Your task to perform on an android device: Open Chrome and go to the settings page Image 0: 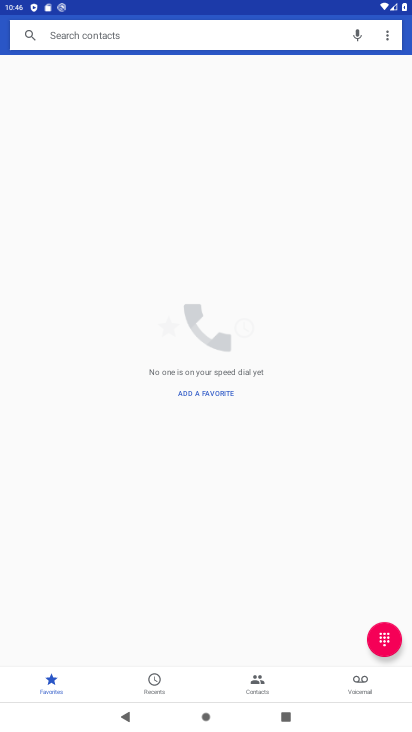
Step 0: press home button
Your task to perform on an android device: Open Chrome and go to the settings page Image 1: 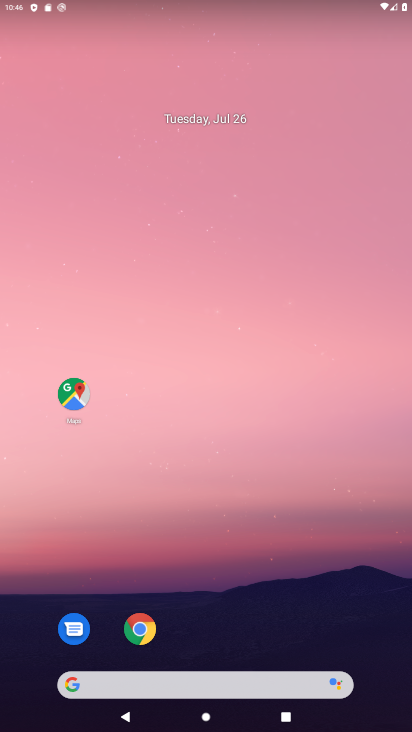
Step 1: drag from (265, 589) to (232, 6)
Your task to perform on an android device: Open Chrome and go to the settings page Image 2: 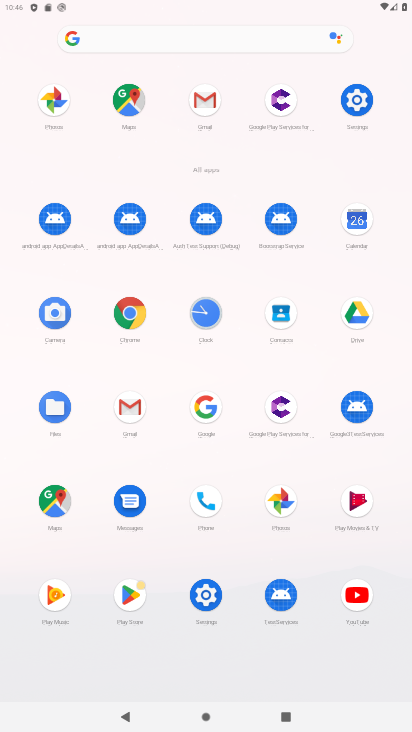
Step 2: click (125, 303)
Your task to perform on an android device: Open Chrome and go to the settings page Image 3: 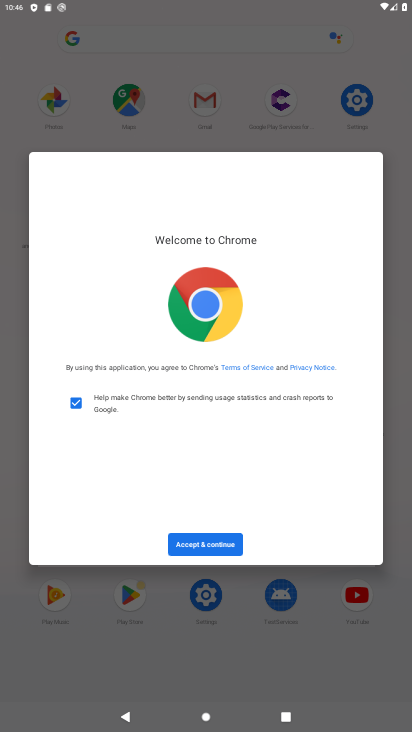
Step 3: click (196, 537)
Your task to perform on an android device: Open Chrome and go to the settings page Image 4: 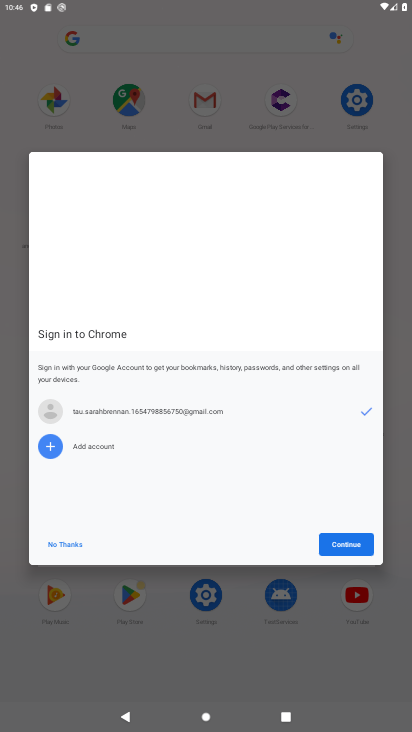
Step 4: click (328, 541)
Your task to perform on an android device: Open Chrome and go to the settings page Image 5: 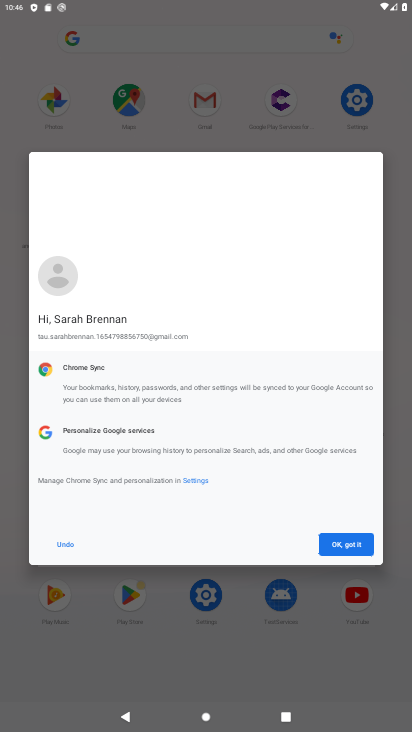
Step 5: click (361, 551)
Your task to perform on an android device: Open Chrome and go to the settings page Image 6: 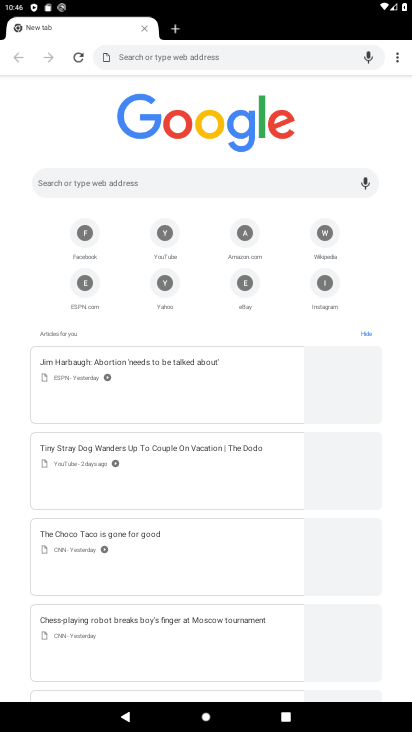
Step 6: task complete